Your task to perform on an android device: When is my next meeting? Image 0: 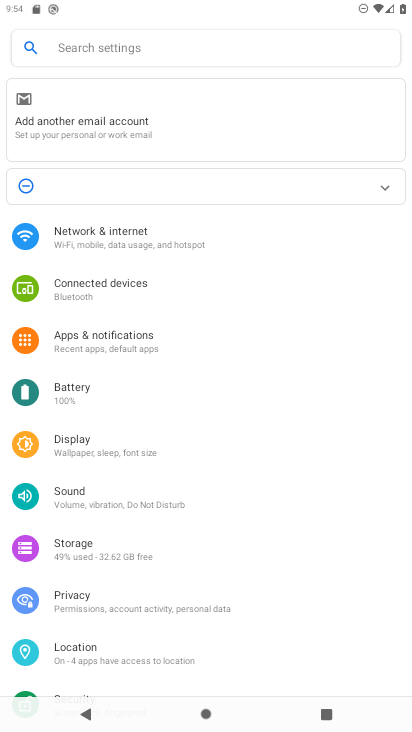
Step 0: press home button
Your task to perform on an android device: When is my next meeting? Image 1: 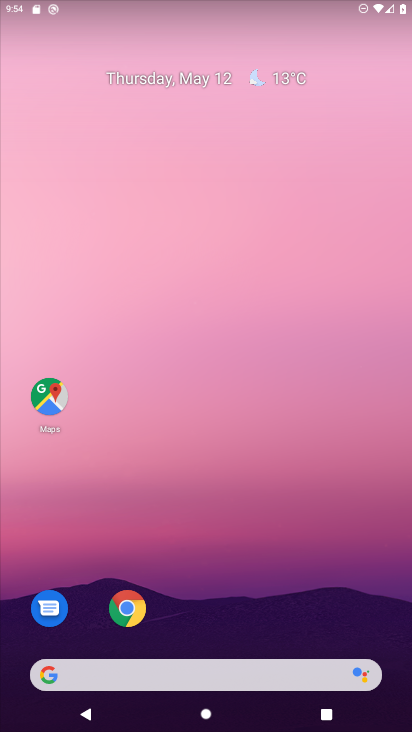
Step 1: drag from (246, 593) to (269, 111)
Your task to perform on an android device: When is my next meeting? Image 2: 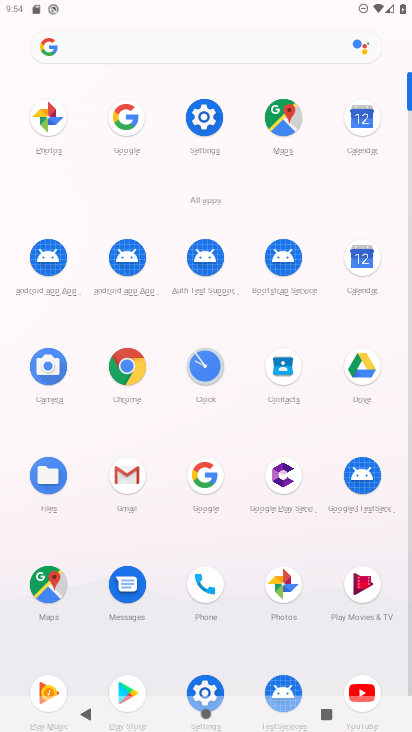
Step 2: click (361, 261)
Your task to perform on an android device: When is my next meeting? Image 3: 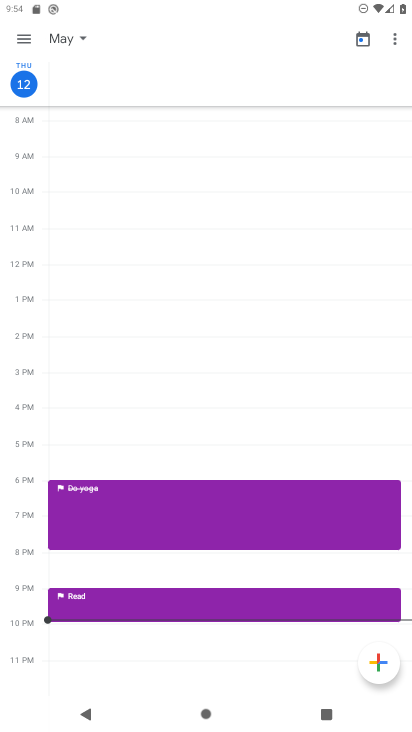
Step 3: click (90, 44)
Your task to perform on an android device: When is my next meeting? Image 4: 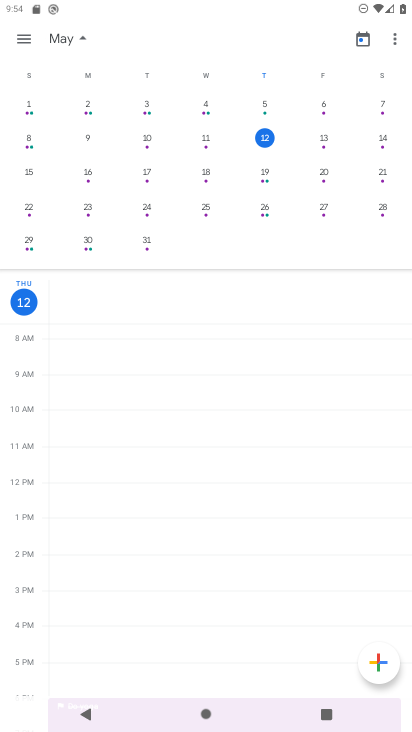
Step 4: click (265, 171)
Your task to perform on an android device: When is my next meeting? Image 5: 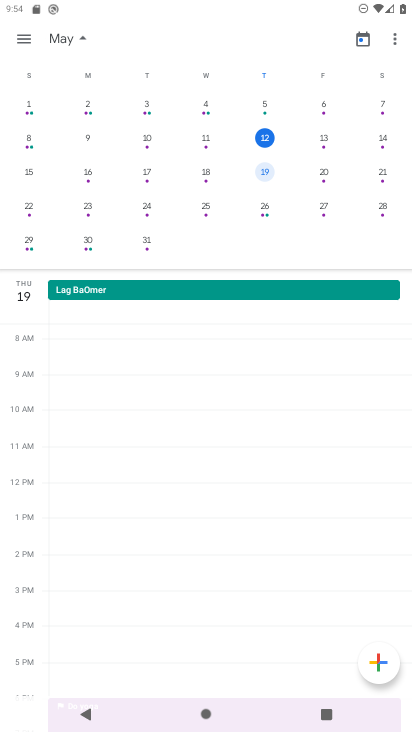
Step 5: task complete